Your task to perform on an android device: Open internet settings Image 0: 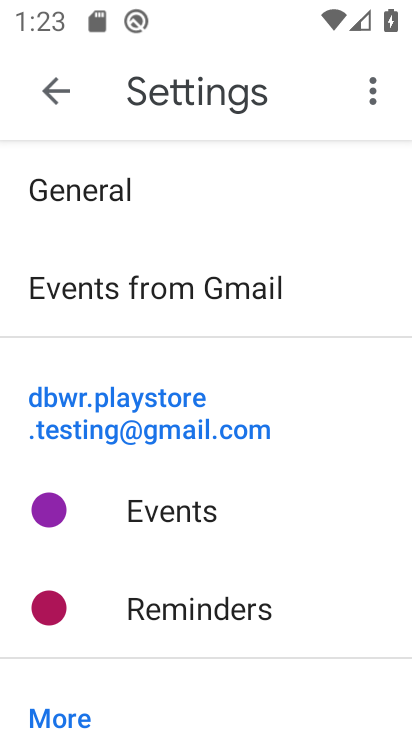
Step 0: press home button
Your task to perform on an android device: Open internet settings Image 1: 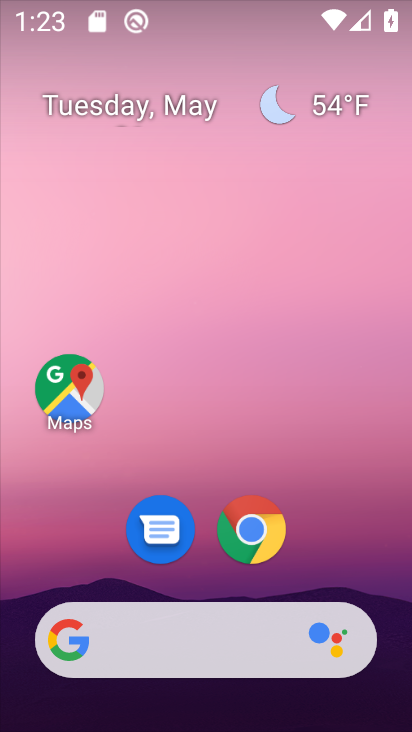
Step 1: drag from (322, 551) to (277, 243)
Your task to perform on an android device: Open internet settings Image 2: 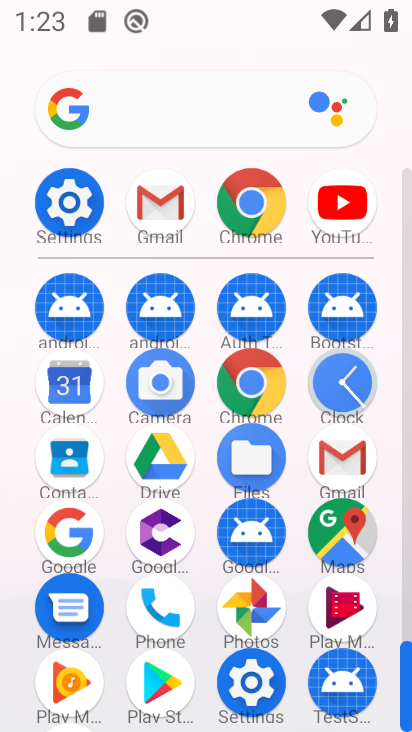
Step 2: click (77, 202)
Your task to perform on an android device: Open internet settings Image 3: 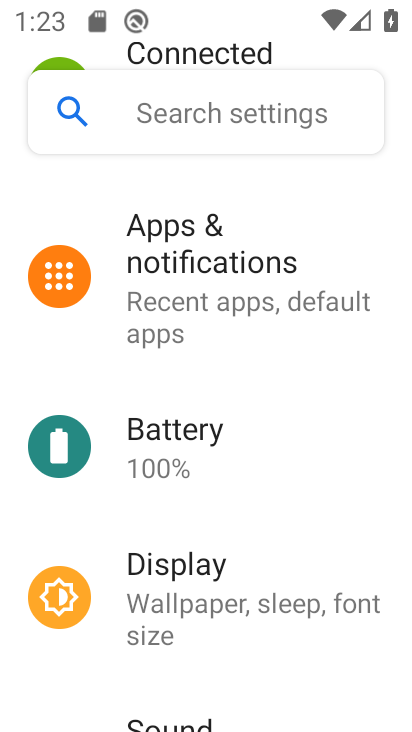
Step 3: drag from (244, 249) to (255, 558)
Your task to perform on an android device: Open internet settings Image 4: 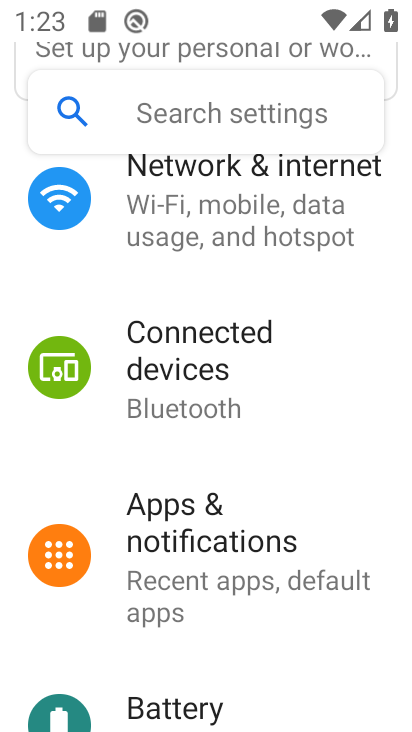
Step 4: drag from (237, 211) to (247, 548)
Your task to perform on an android device: Open internet settings Image 5: 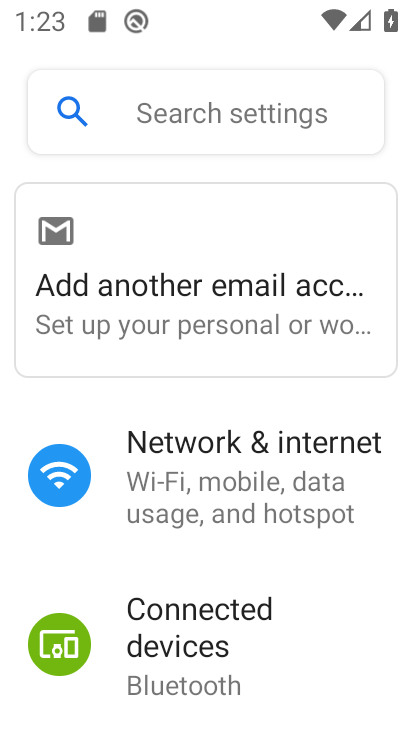
Step 5: click (254, 458)
Your task to perform on an android device: Open internet settings Image 6: 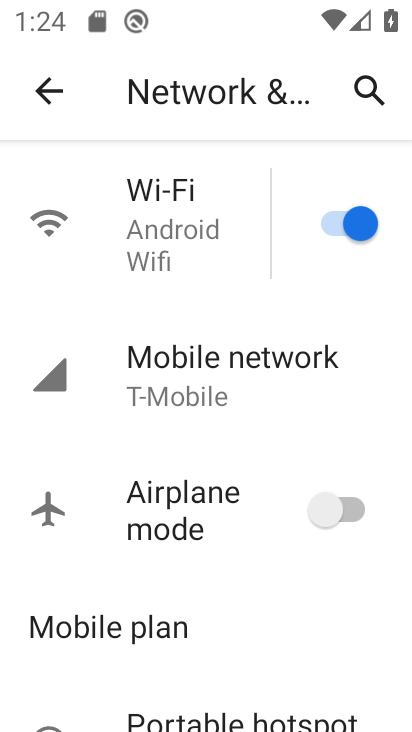
Step 6: task complete